Your task to perform on an android device: change the clock display to show seconds Image 0: 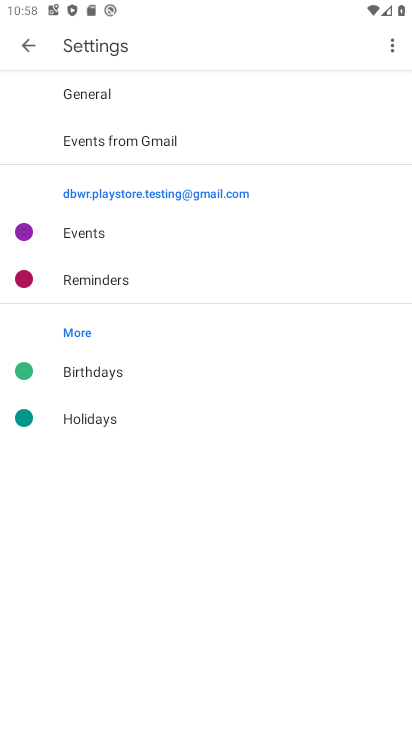
Step 0: press home button
Your task to perform on an android device: change the clock display to show seconds Image 1: 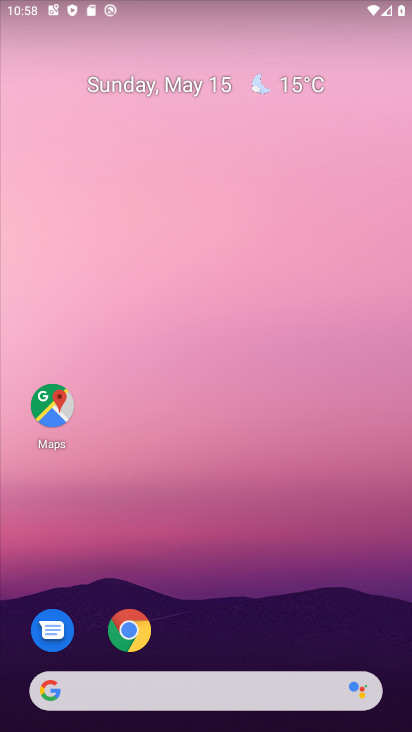
Step 1: drag from (201, 719) to (201, 167)
Your task to perform on an android device: change the clock display to show seconds Image 2: 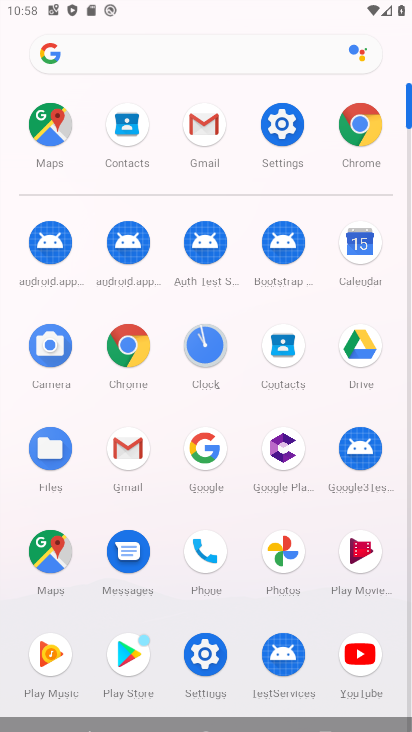
Step 2: click (208, 338)
Your task to perform on an android device: change the clock display to show seconds Image 3: 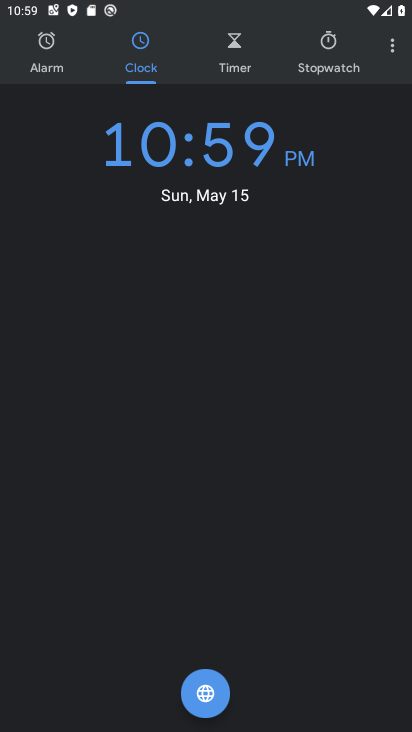
Step 3: click (394, 52)
Your task to perform on an android device: change the clock display to show seconds Image 4: 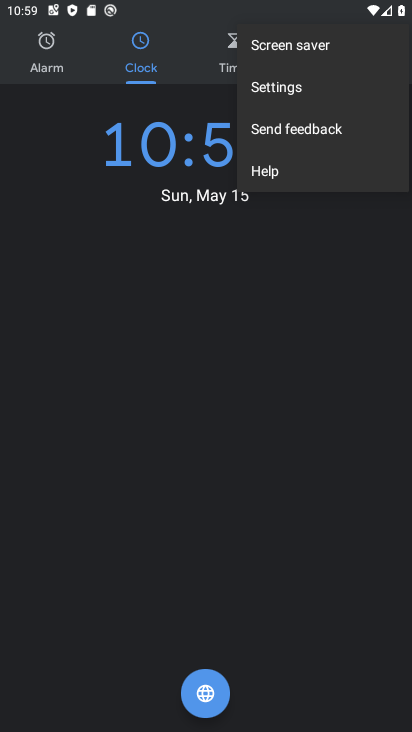
Step 4: click (288, 74)
Your task to perform on an android device: change the clock display to show seconds Image 5: 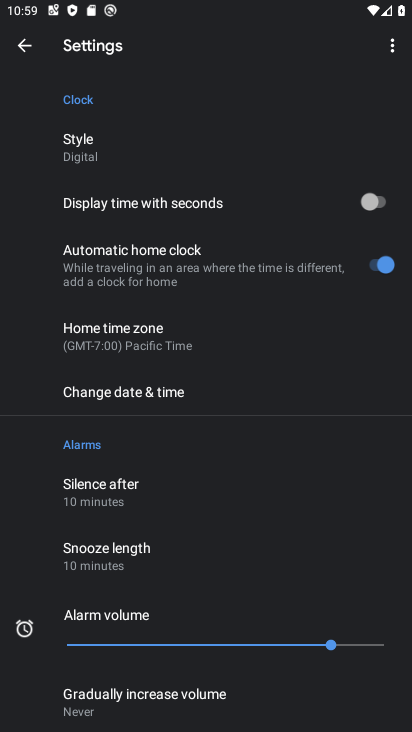
Step 5: click (377, 196)
Your task to perform on an android device: change the clock display to show seconds Image 6: 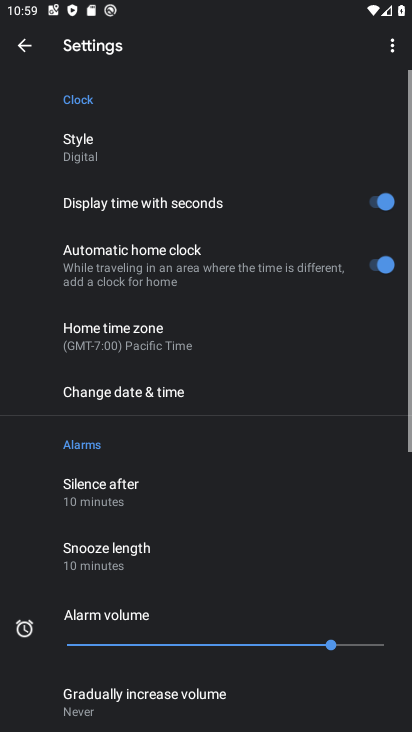
Step 6: task complete